Your task to perform on an android device: Open the calendar app, open the side menu, and click the "Day" option Image 0: 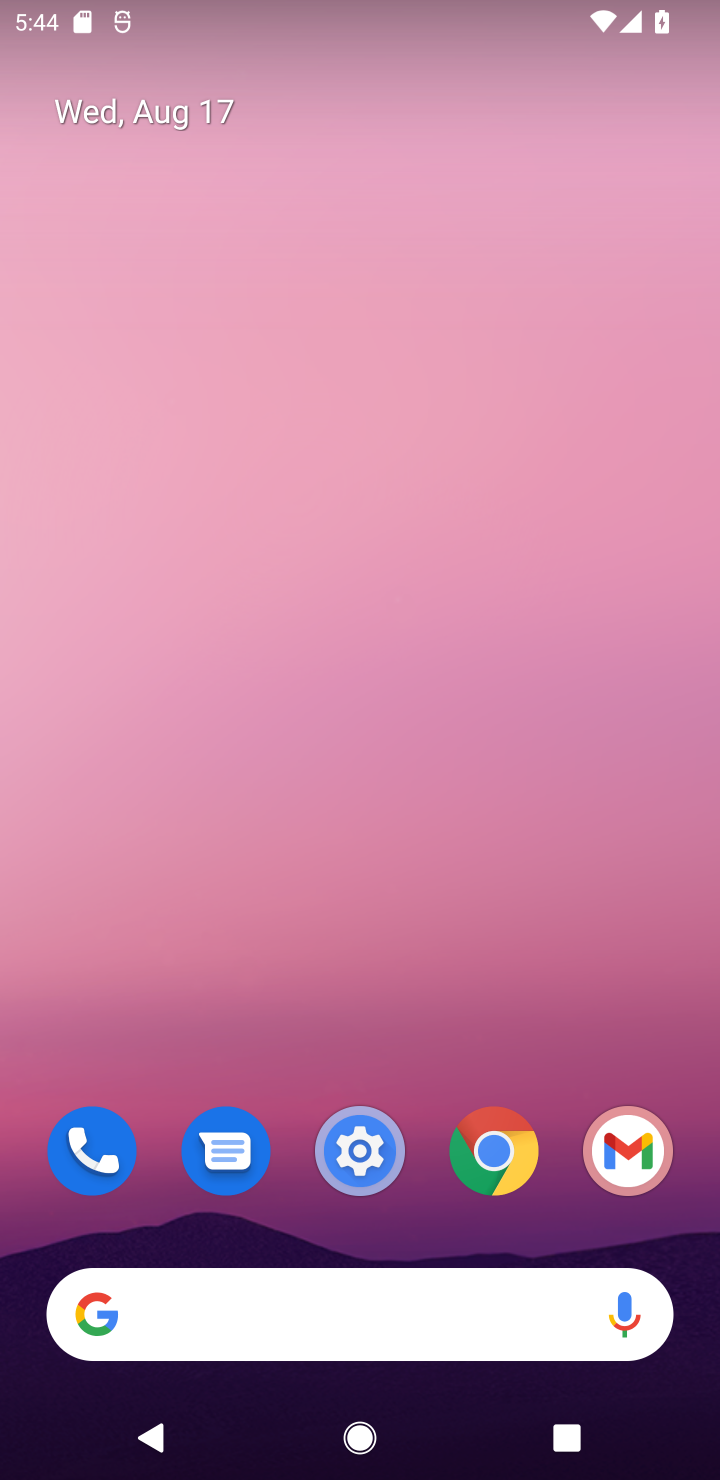
Step 0: drag from (414, 1251) to (441, 167)
Your task to perform on an android device: Open the calendar app, open the side menu, and click the "Day" option Image 1: 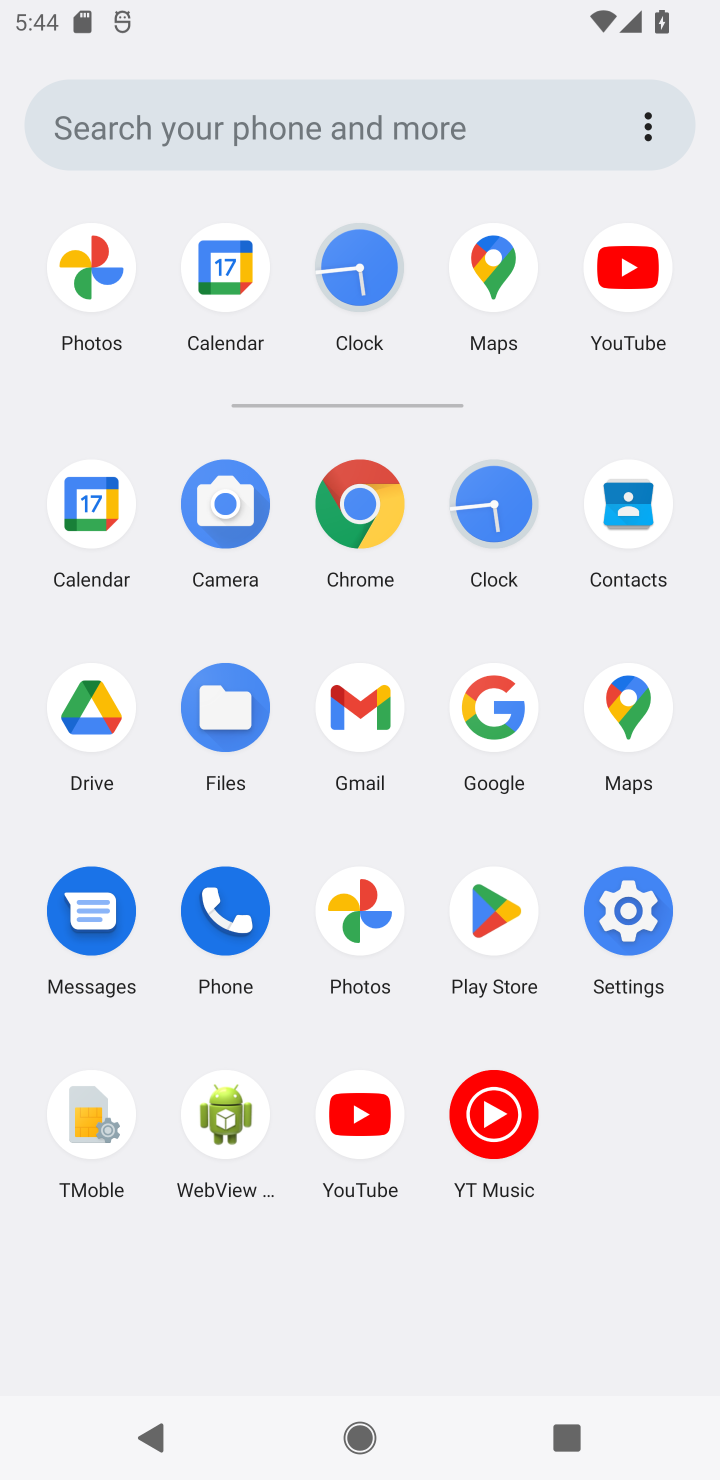
Step 1: click (180, 298)
Your task to perform on an android device: Open the calendar app, open the side menu, and click the "Day" option Image 2: 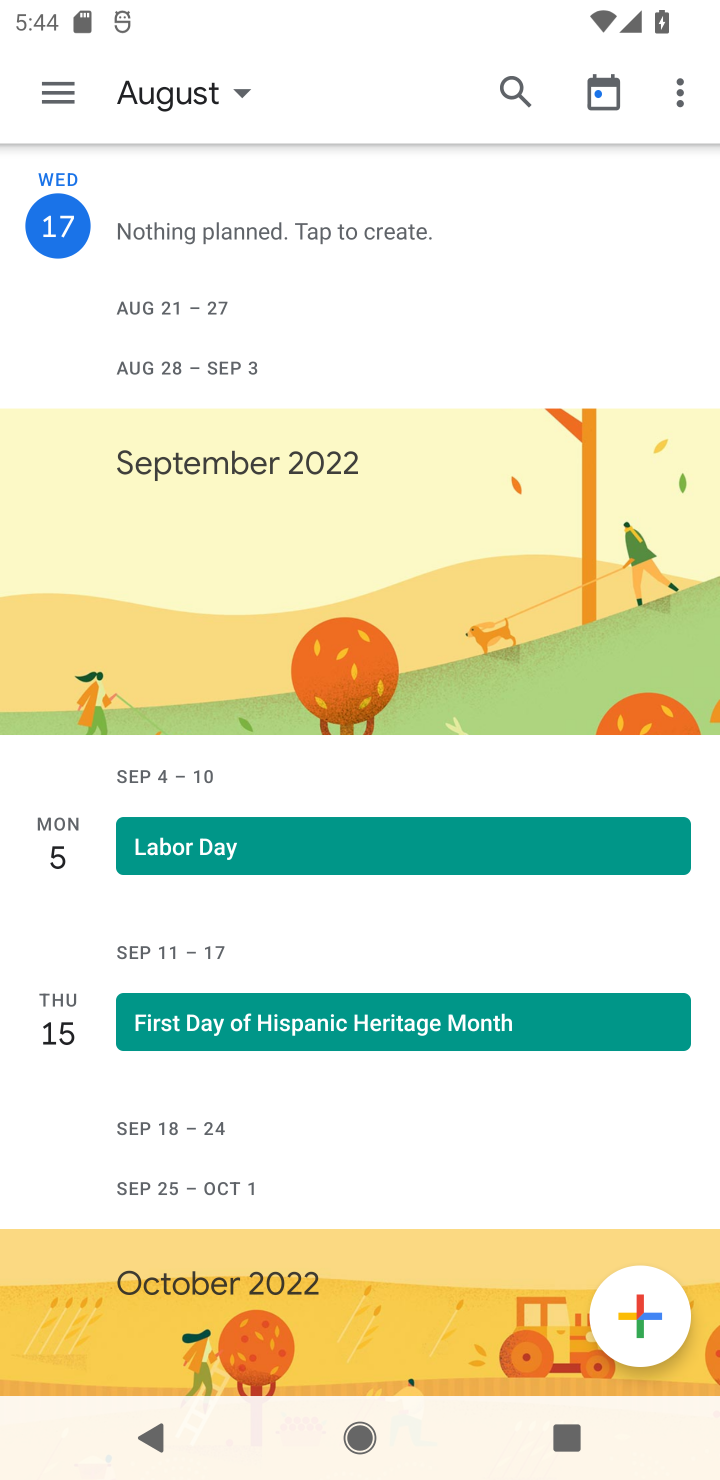
Step 2: task complete